Your task to perform on an android device: Turn off the flashlight Image 0: 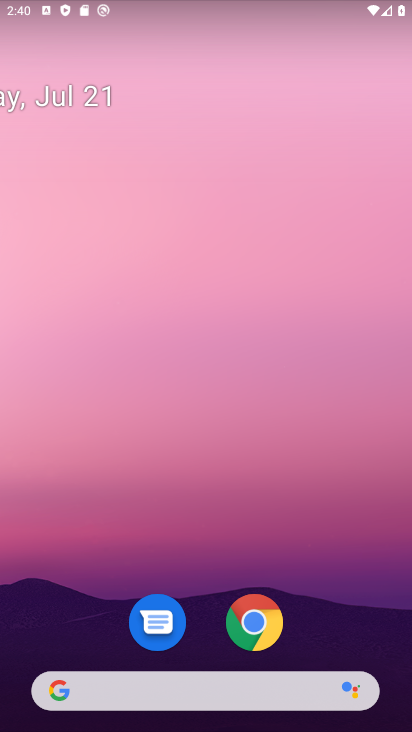
Step 0: drag from (262, 715) to (197, 83)
Your task to perform on an android device: Turn off the flashlight Image 1: 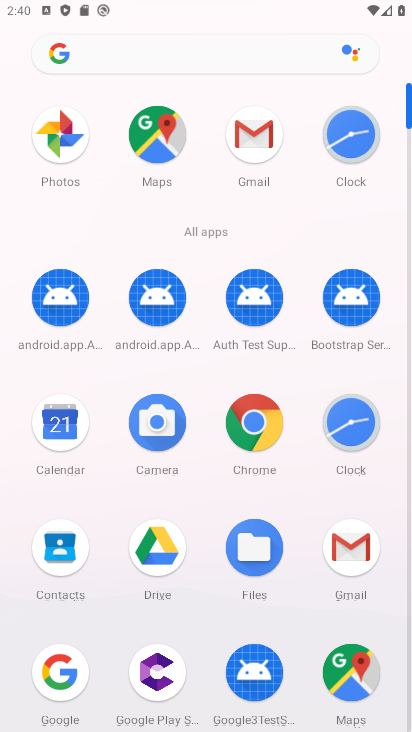
Step 1: drag from (211, 497) to (207, 180)
Your task to perform on an android device: Turn off the flashlight Image 2: 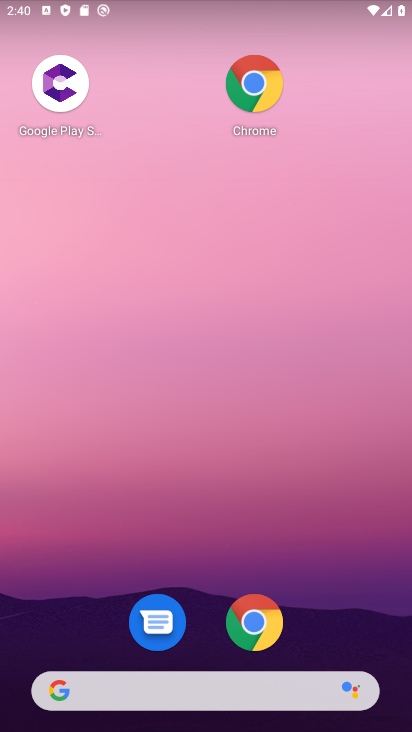
Step 2: drag from (270, 708) to (322, 65)
Your task to perform on an android device: Turn off the flashlight Image 3: 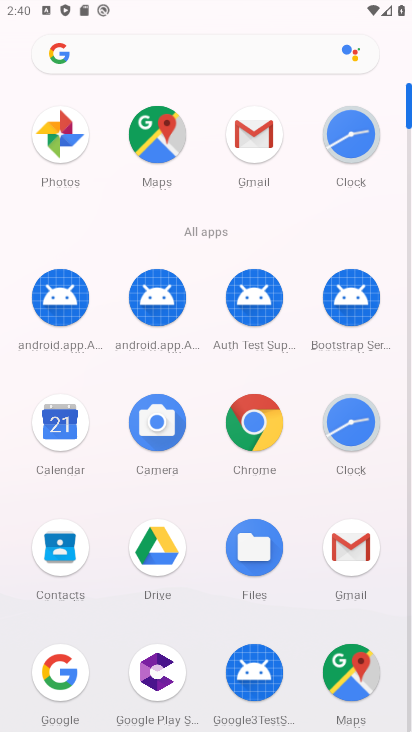
Step 3: drag from (197, 462) to (171, 114)
Your task to perform on an android device: Turn off the flashlight Image 4: 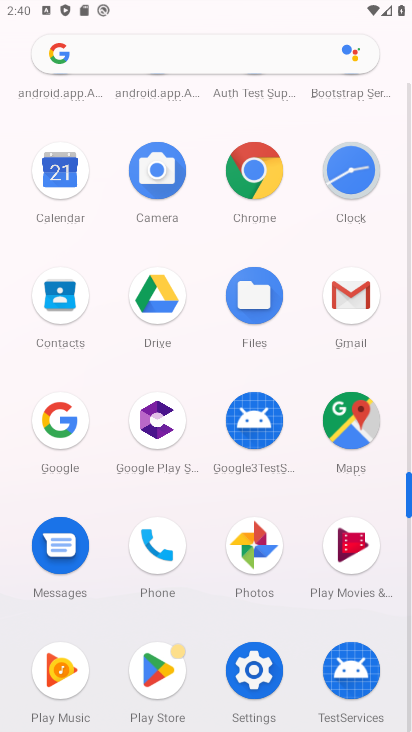
Step 4: drag from (137, 488) to (151, 259)
Your task to perform on an android device: Turn off the flashlight Image 5: 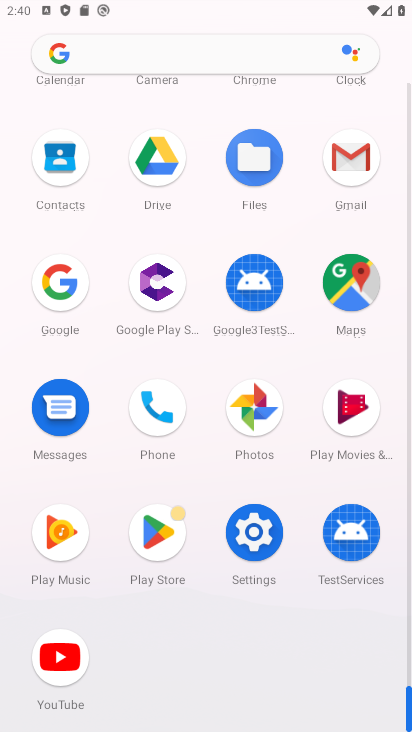
Step 5: click (255, 526)
Your task to perform on an android device: Turn off the flashlight Image 6: 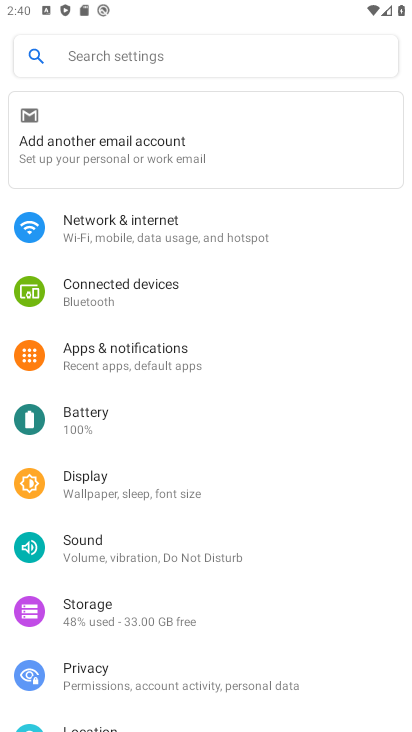
Step 6: click (133, 49)
Your task to perform on an android device: Turn off the flashlight Image 7: 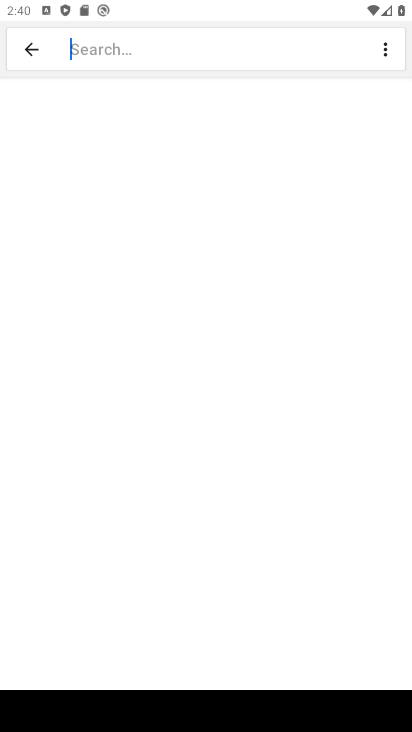
Step 7: drag from (386, 714) to (383, 479)
Your task to perform on an android device: Turn off the flashlight Image 8: 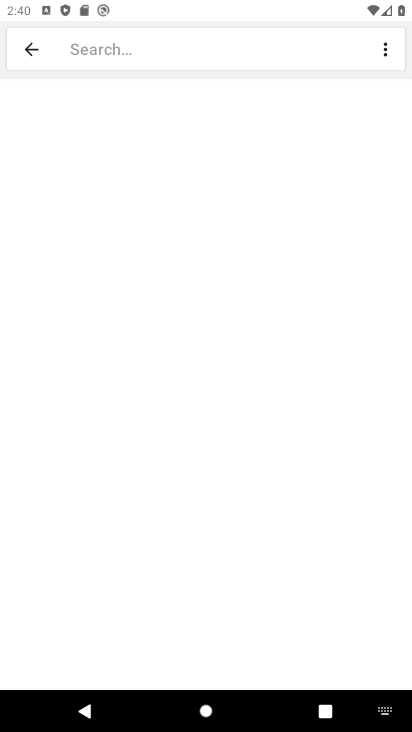
Step 8: click (377, 709)
Your task to perform on an android device: Turn off the flashlight Image 9: 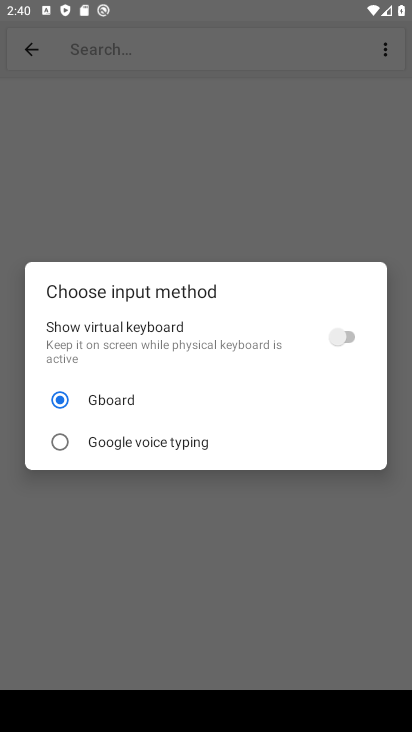
Step 9: click (331, 328)
Your task to perform on an android device: Turn off the flashlight Image 10: 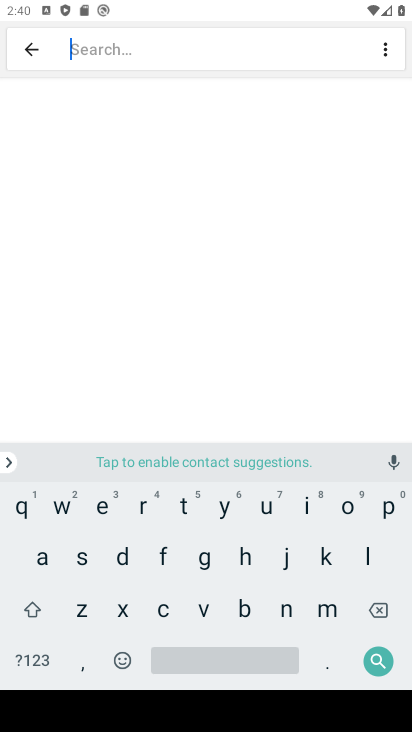
Step 10: click (162, 546)
Your task to perform on an android device: Turn off the flashlight Image 11: 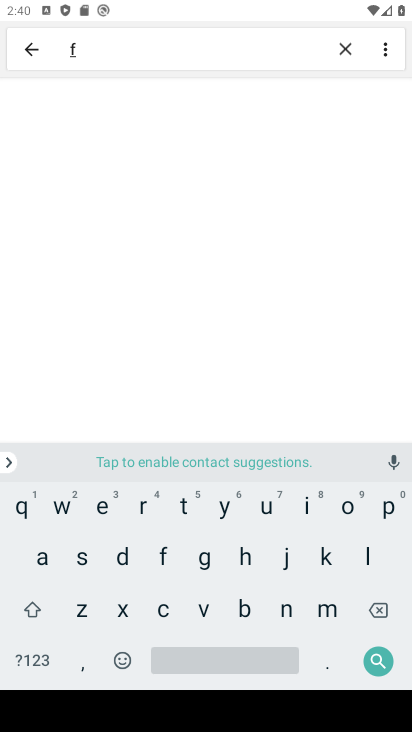
Step 11: click (370, 553)
Your task to perform on an android device: Turn off the flashlight Image 12: 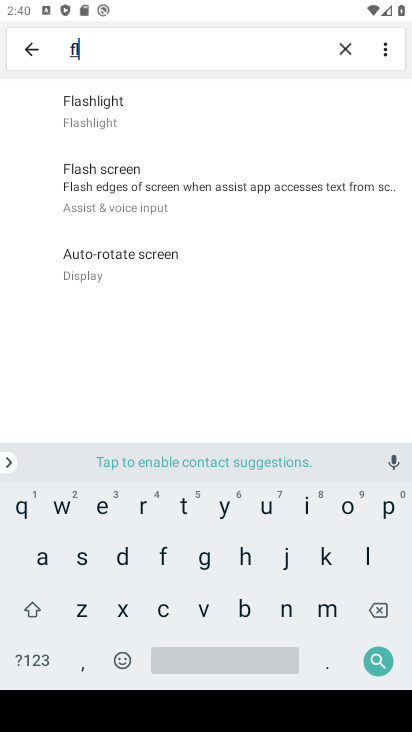
Step 12: click (156, 117)
Your task to perform on an android device: Turn off the flashlight Image 13: 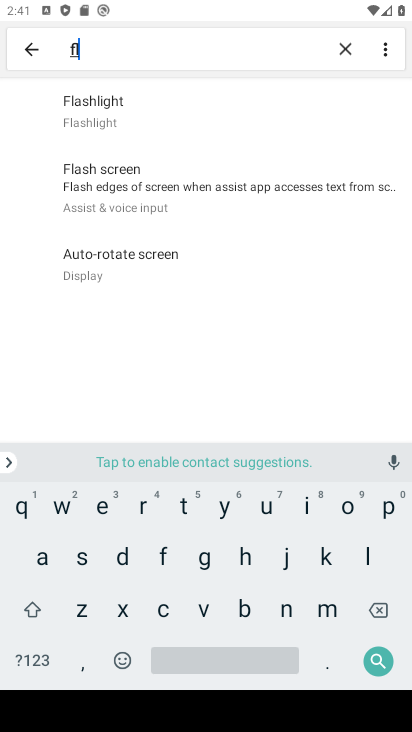
Step 13: task complete